Your task to perform on an android device: turn on notifications settings in the gmail app Image 0: 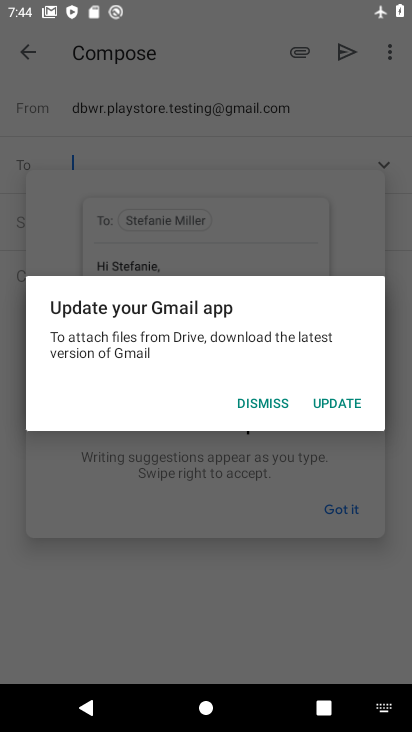
Step 0: press home button
Your task to perform on an android device: turn on notifications settings in the gmail app Image 1: 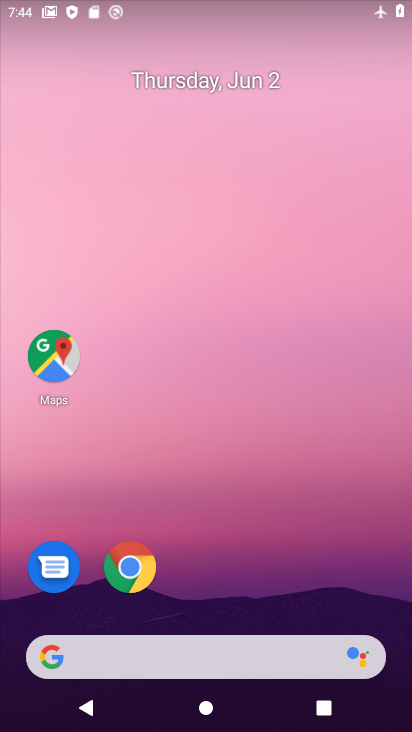
Step 1: drag from (262, 568) to (172, 44)
Your task to perform on an android device: turn on notifications settings in the gmail app Image 2: 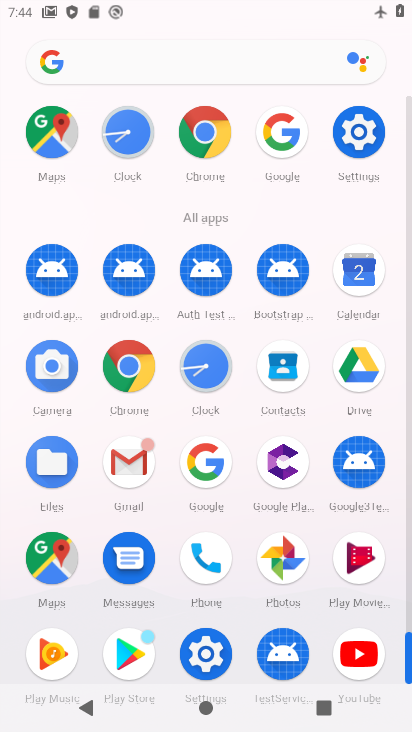
Step 2: click (127, 457)
Your task to perform on an android device: turn on notifications settings in the gmail app Image 3: 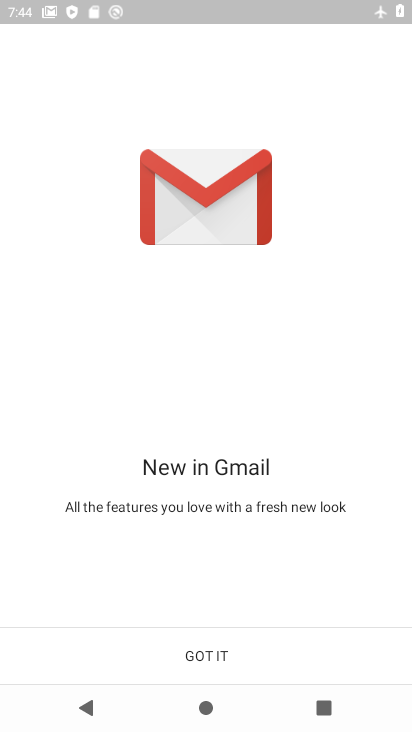
Step 3: click (198, 652)
Your task to perform on an android device: turn on notifications settings in the gmail app Image 4: 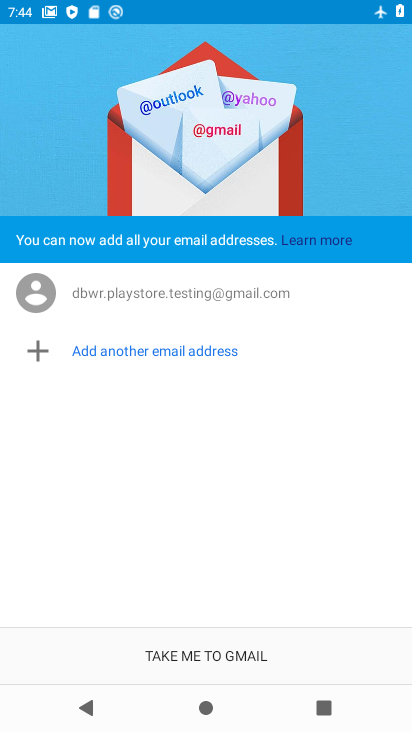
Step 4: click (198, 652)
Your task to perform on an android device: turn on notifications settings in the gmail app Image 5: 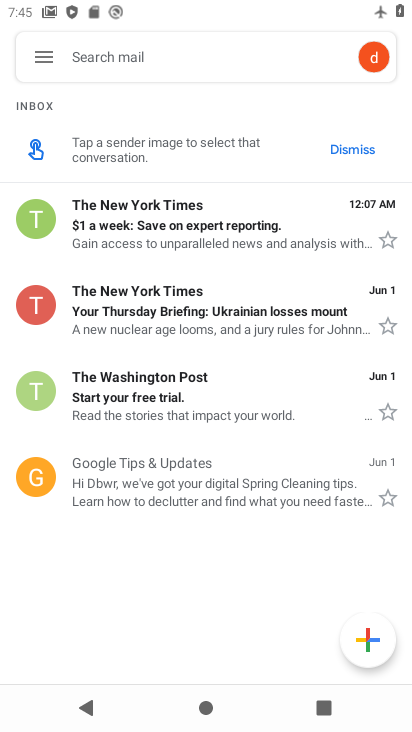
Step 5: click (44, 59)
Your task to perform on an android device: turn on notifications settings in the gmail app Image 6: 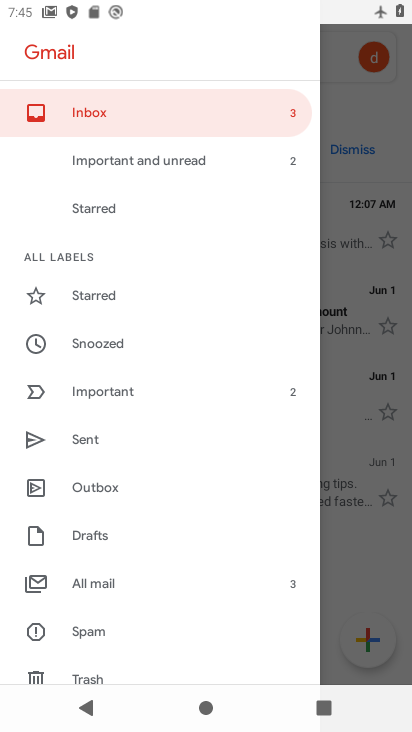
Step 6: drag from (125, 474) to (138, 435)
Your task to perform on an android device: turn on notifications settings in the gmail app Image 7: 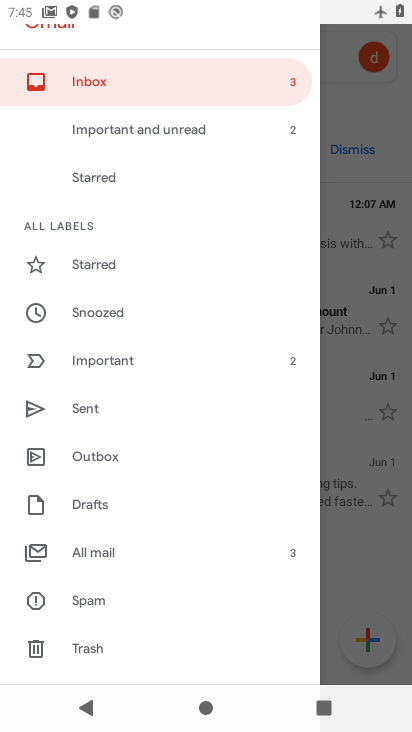
Step 7: drag from (108, 527) to (153, 444)
Your task to perform on an android device: turn on notifications settings in the gmail app Image 8: 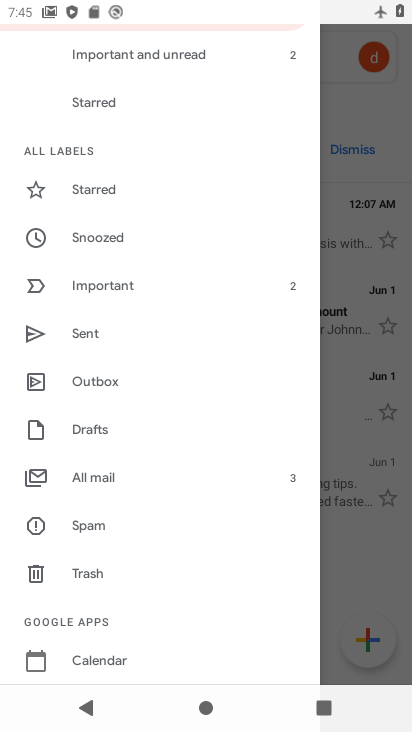
Step 8: drag from (98, 552) to (142, 468)
Your task to perform on an android device: turn on notifications settings in the gmail app Image 9: 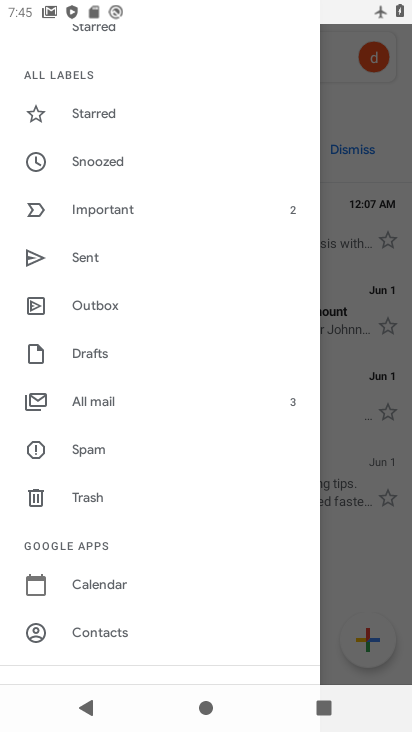
Step 9: drag from (117, 595) to (170, 514)
Your task to perform on an android device: turn on notifications settings in the gmail app Image 10: 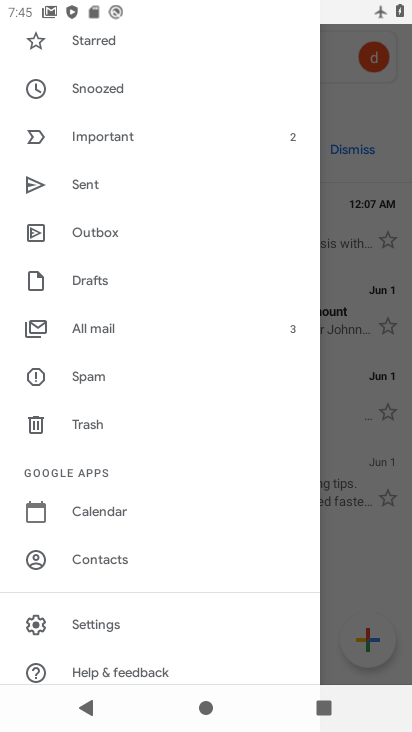
Step 10: click (94, 617)
Your task to perform on an android device: turn on notifications settings in the gmail app Image 11: 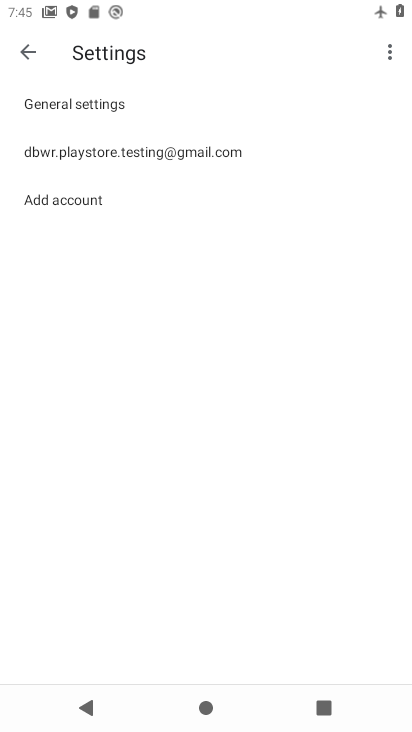
Step 11: click (146, 150)
Your task to perform on an android device: turn on notifications settings in the gmail app Image 12: 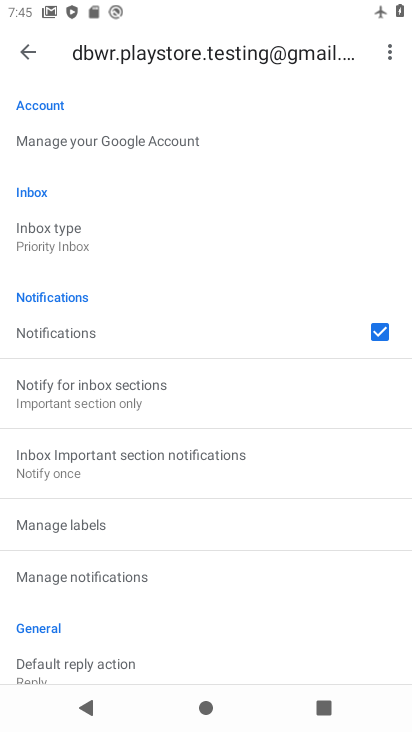
Step 12: click (64, 574)
Your task to perform on an android device: turn on notifications settings in the gmail app Image 13: 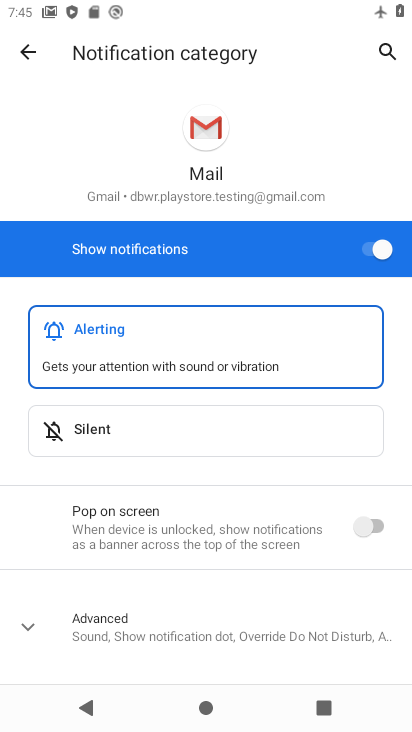
Step 13: task complete